Your task to perform on an android device: refresh tabs in the chrome app Image 0: 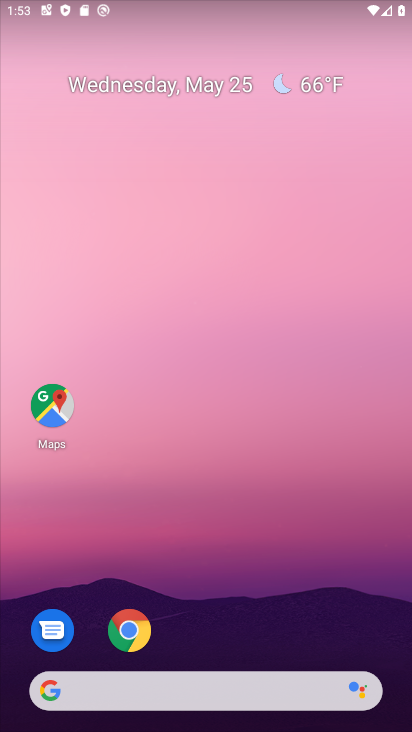
Step 0: press home button
Your task to perform on an android device: refresh tabs in the chrome app Image 1: 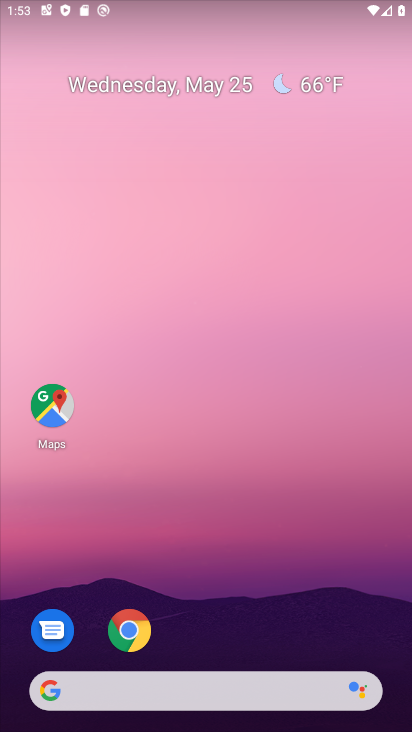
Step 1: click (130, 626)
Your task to perform on an android device: refresh tabs in the chrome app Image 2: 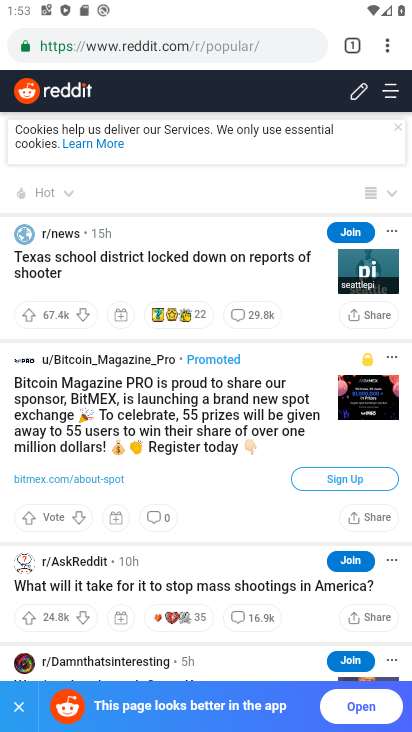
Step 2: click (383, 51)
Your task to perform on an android device: refresh tabs in the chrome app Image 3: 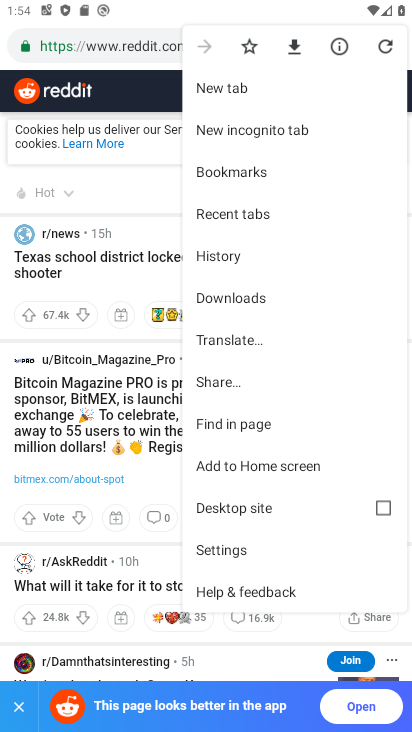
Step 3: click (389, 43)
Your task to perform on an android device: refresh tabs in the chrome app Image 4: 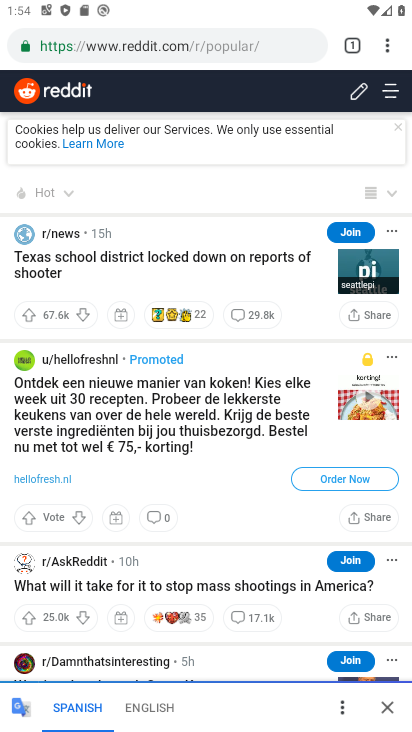
Step 4: task complete